Your task to perform on an android device: toggle pop-ups in chrome Image 0: 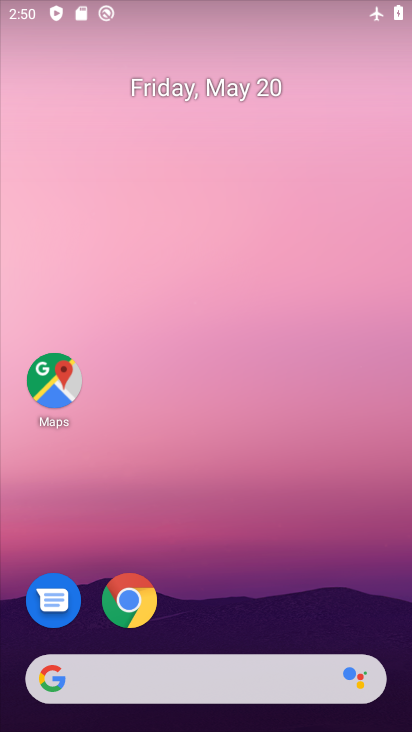
Step 0: click (270, 364)
Your task to perform on an android device: toggle pop-ups in chrome Image 1: 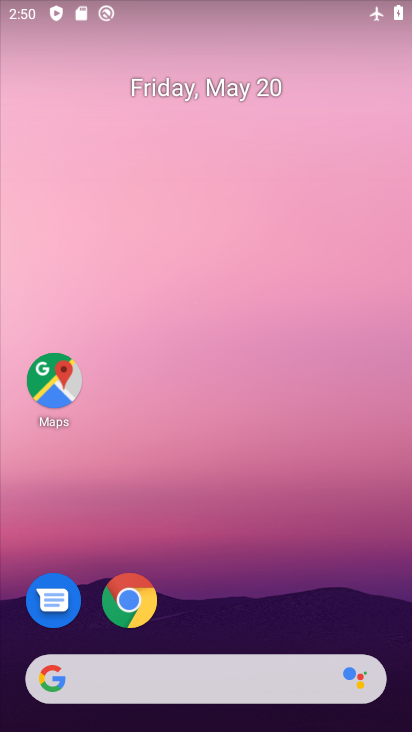
Step 1: click (145, 613)
Your task to perform on an android device: toggle pop-ups in chrome Image 2: 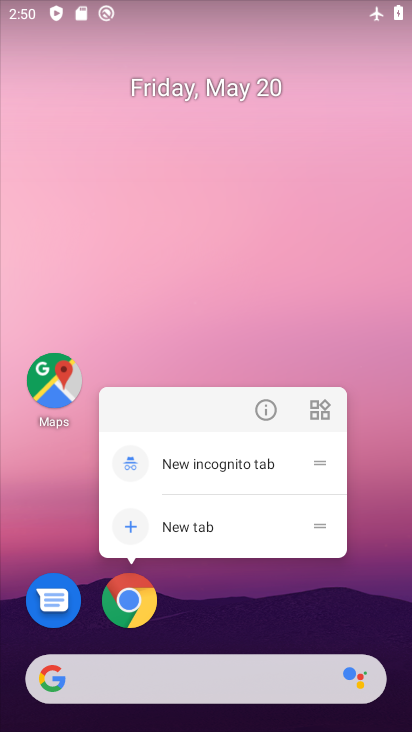
Step 2: click (139, 600)
Your task to perform on an android device: toggle pop-ups in chrome Image 3: 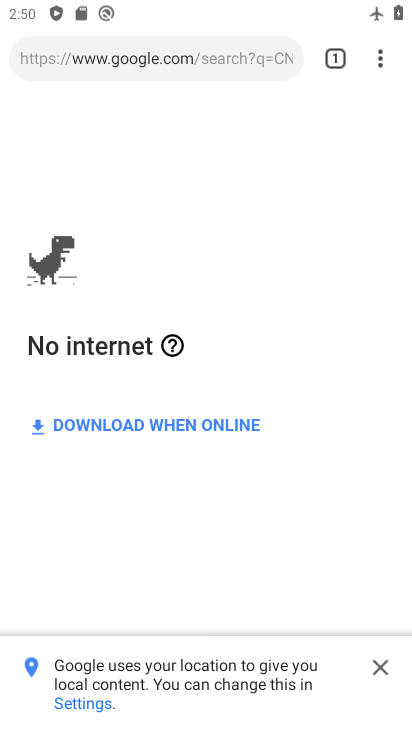
Step 3: click (372, 672)
Your task to perform on an android device: toggle pop-ups in chrome Image 4: 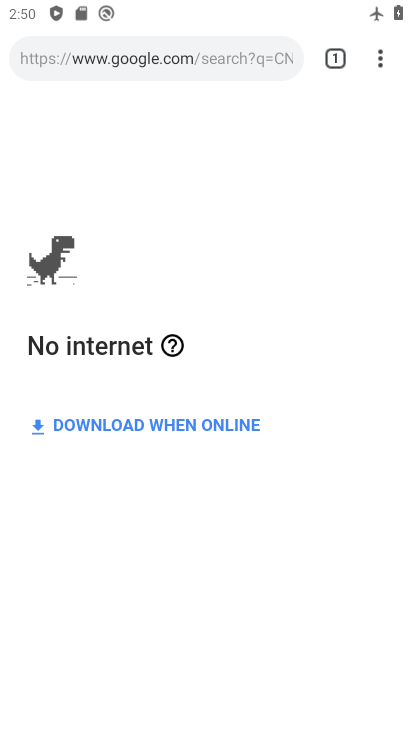
Step 4: click (386, 52)
Your task to perform on an android device: toggle pop-ups in chrome Image 5: 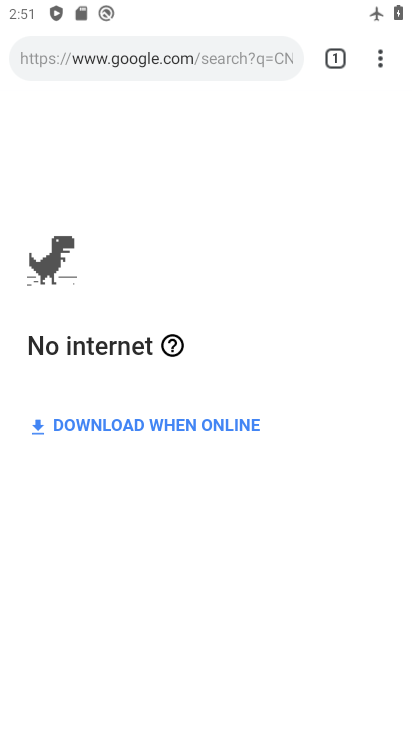
Step 5: click (377, 61)
Your task to perform on an android device: toggle pop-ups in chrome Image 6: 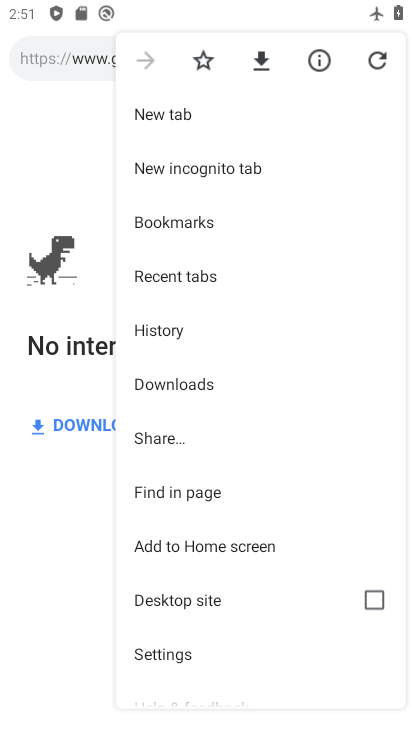
Step 6: drag from (186, 613) to (199, 403)
Your task to perform on an android device: toggle pop-ups in chrome Image 7: 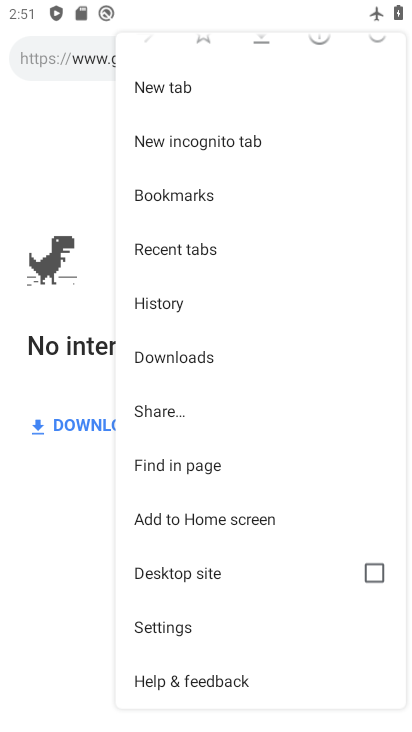
Step 7: click (160, 635)
Your task to perform on an android device: toggle pop-ups in chrome Image 8: 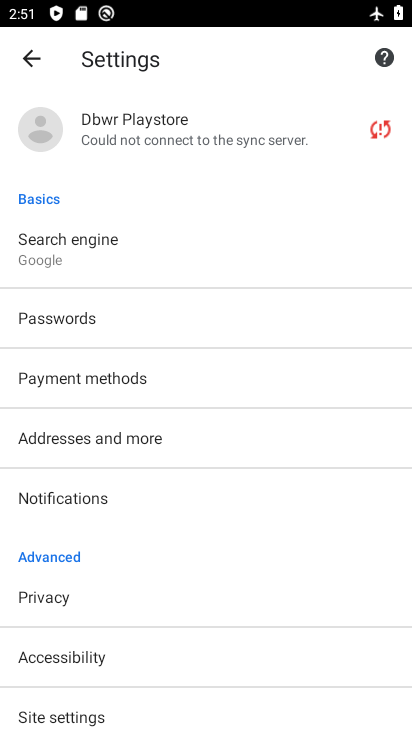
Step 8: drag from (204, 615) to (201, 210)
Your task to perform on an android device: toggle pop-ups in chrome Image 9: 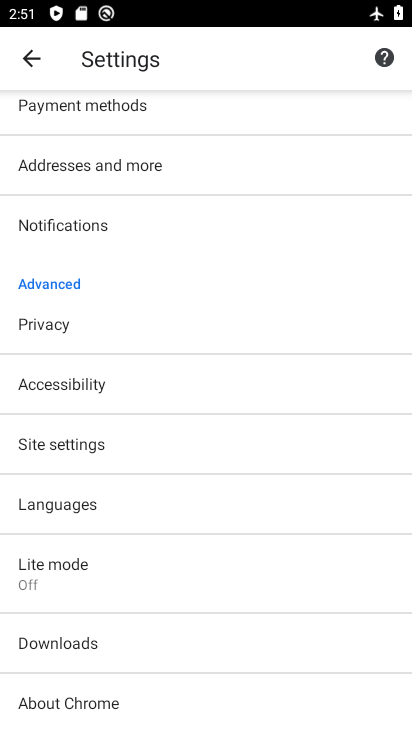
Step 9: click (65, 455)
Your task to perform on an android device: toggle pop-ups in chrome Image 10: 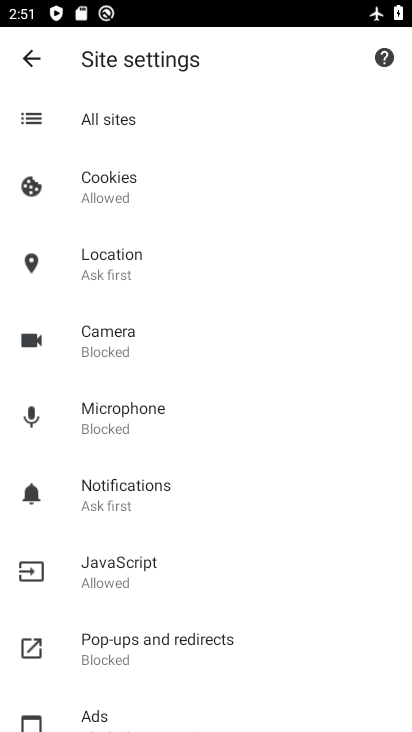
Step 10: click (163, 633)
Your task to perform on an android device: toggle pop-ups in chrome Image 11: 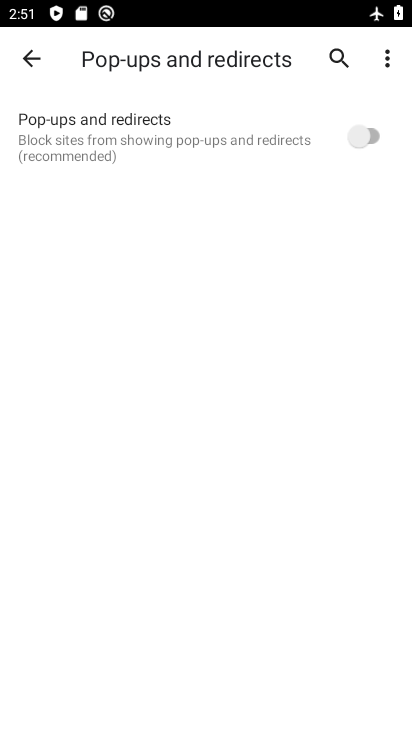
Step 11: click (372, 134)
Your task to perform on an android device: toggle pop-ups in chrome Image 12: 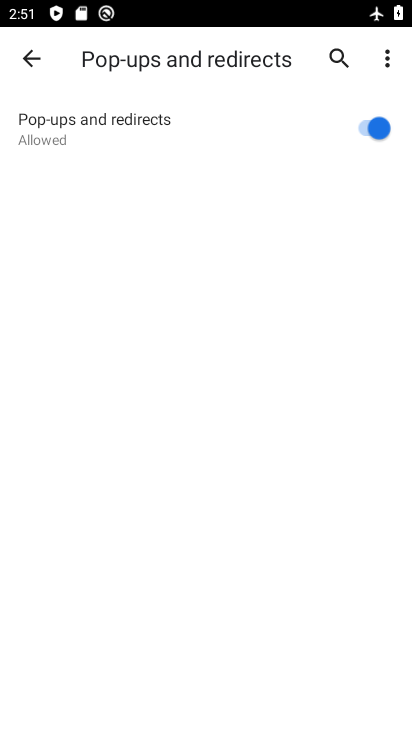
Step 12: task complete